Your task to perform on an android device: See recent photos Image 0: 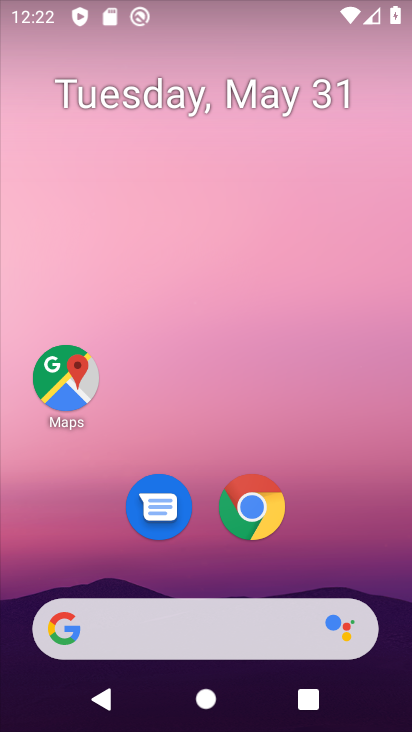
Step 0: drag from (357, 543) to (338, 239)
Your task to perform on an android device: See recent photos Image 1: 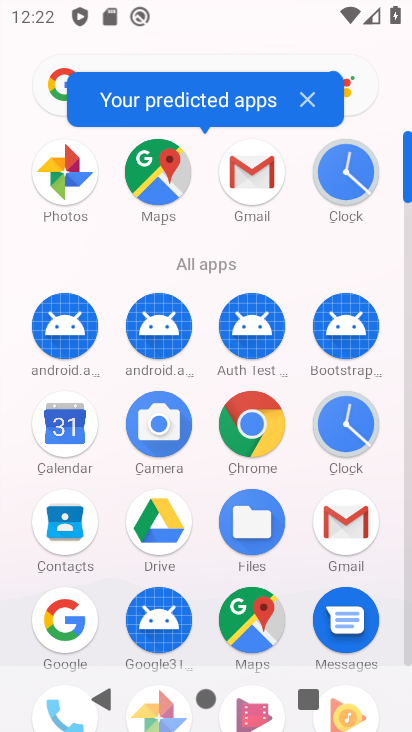
Step 1: click (52, 174)
Your task to perform on an android device: See recent photos Image 2: 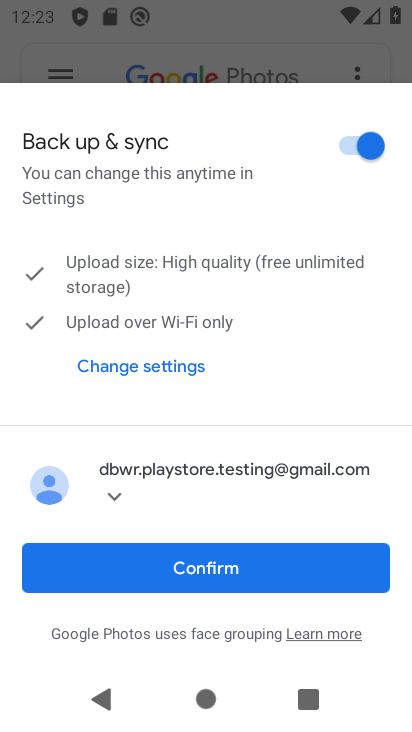
Step 2: click (272, 569)
Your task to perform on an android device: See recent photos Image 3: 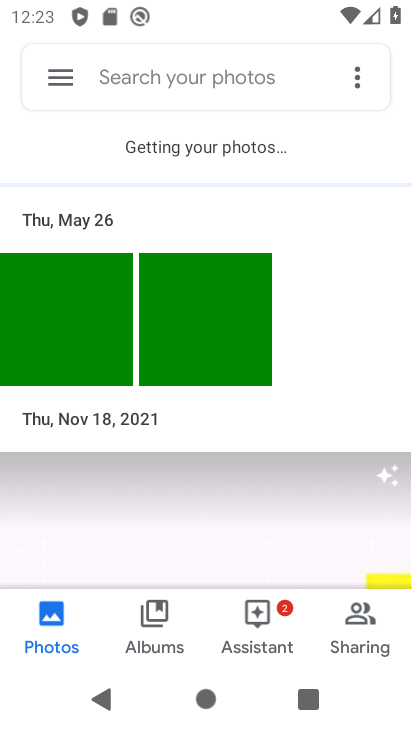
Step 3: task complete